Your task to perform on an android device: make emails show in primary in the gmail app Image 0: 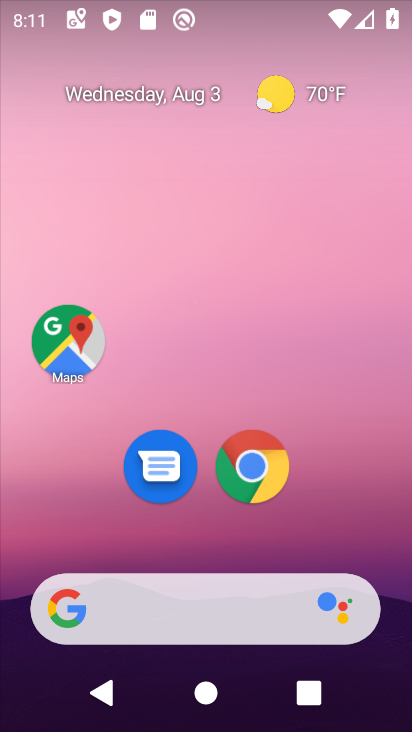
Step 0: drag from (342, 508) to (334, 257)
Your task to perform on an android device: make emails show in primary in the gmail app Image 1: 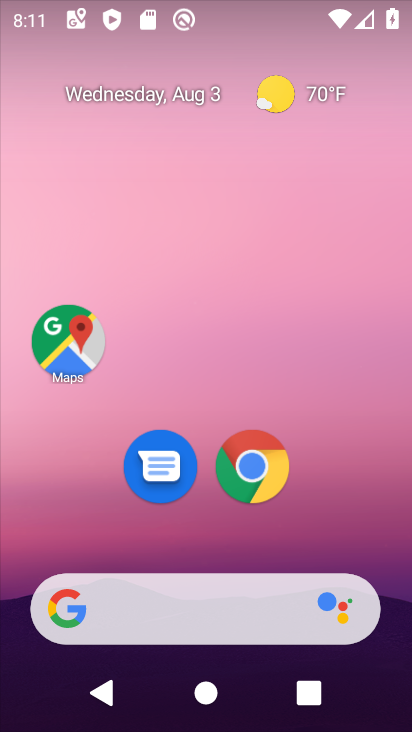
Step 1: drag from (371, 450) to (342, 35)
Your task to perform on an android device: make emails show in primary in the gmail app Image 2: 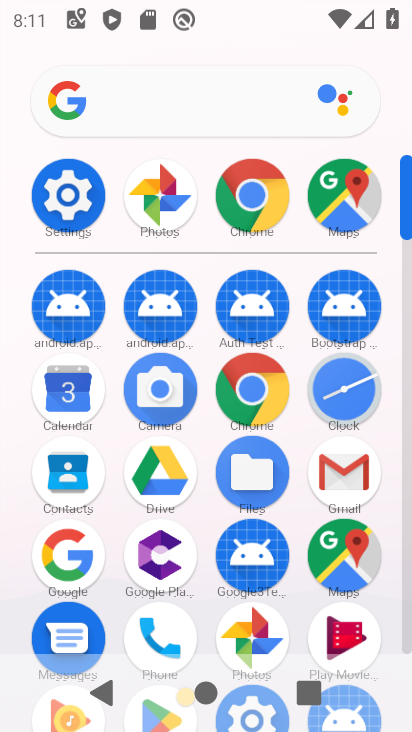
Step 2: click (337, 490)
Your task to perform on an android device: make emails show in primary in the gmail app Image 3: 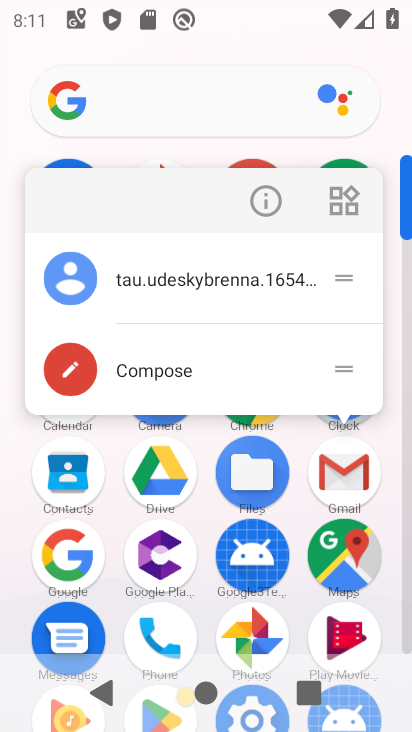
Step 3: click (340, 476)
Your task to perform on an android device: make emails show in primary in the gmail app Image 4: 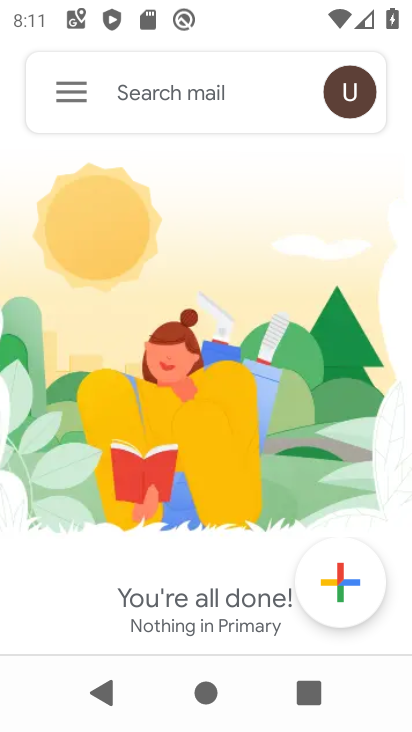
Step 4: click (78, 91)
Your task to perform on an android device: make emails show in primary in the gmail app Image 5: 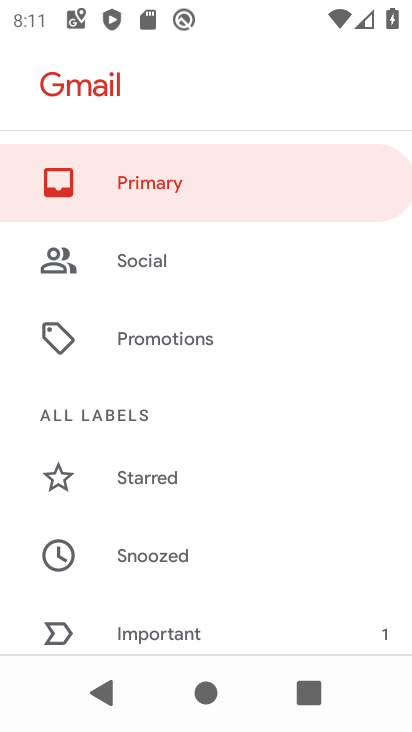
Step 5: drag from (308, 559) to (303, 53)
Your task to perform on an android device: make emails show in primary in the gmail app Image 6: 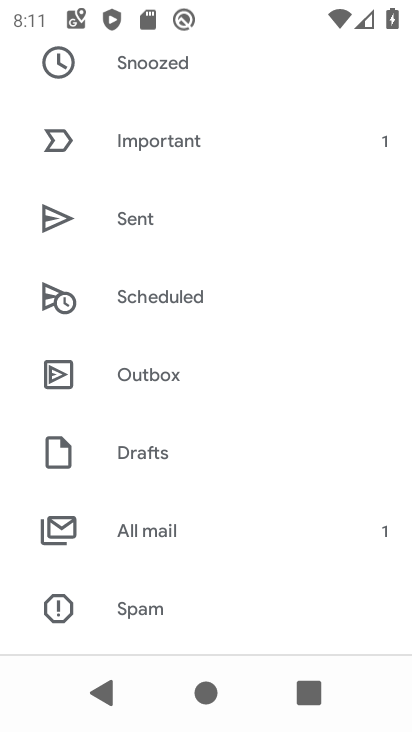
Step 6: drag from (301, 579) to (305, 218)
Your task to perform on an android device: make emails show in primary in the gmail app Image 7: 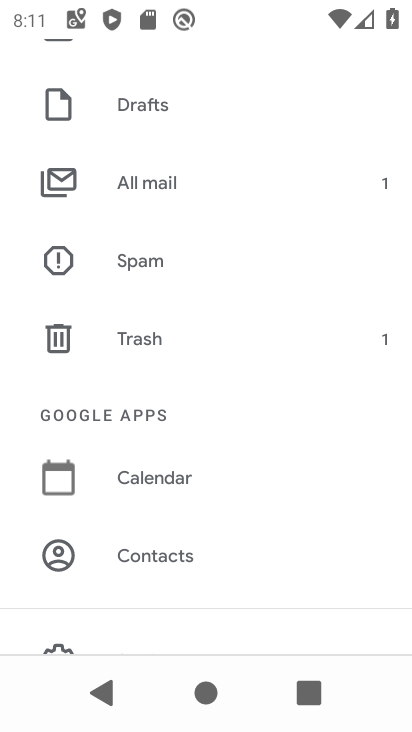
Step 7: drag from (243, 600) to (283, 298)
Your task to perform on an android device: make emails show in primary in the gmail app Image 8: 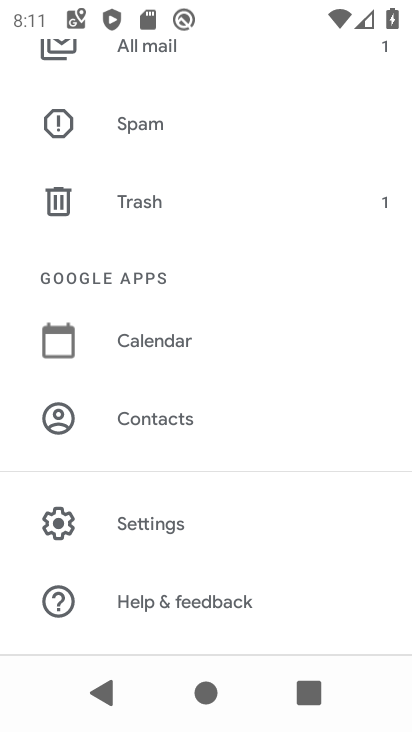
Step 8: click (150, 530)
Your task to perform on an android device: make emails show in primary in the gmail app Image 9: 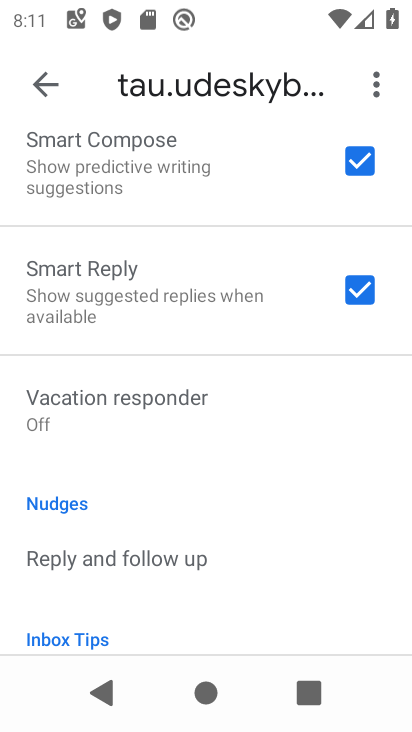
Step 9: drag from (257, 170) to (237, 570)
Your task to perform on an android device: make emails show in primary in the gmail app Image 10: 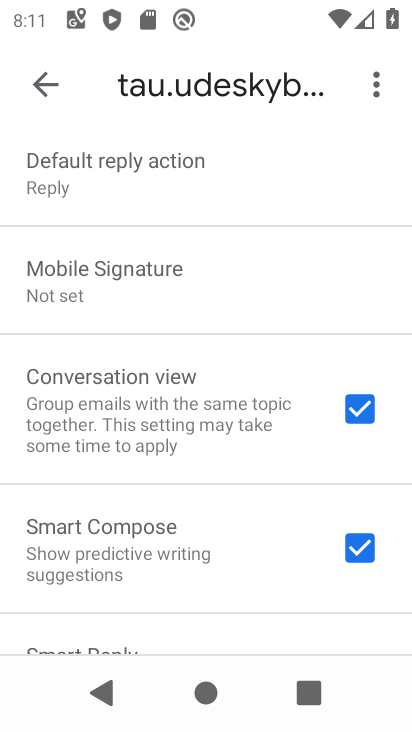
Step 10: drag from (259, 189) to (243, 559)
Your task to perform on an android device: make emails show in primary in the gmail app Image 11: 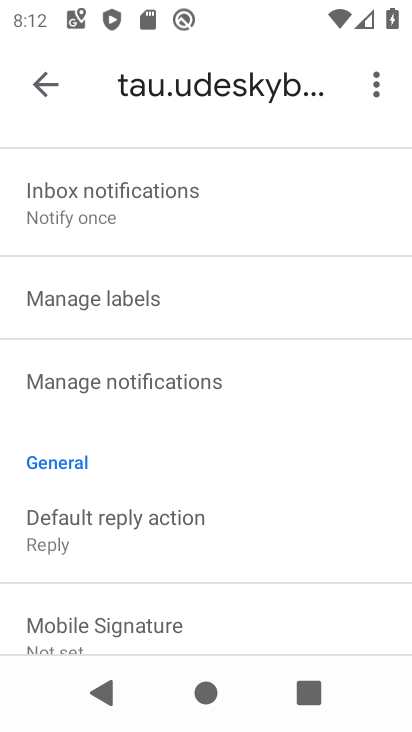
Step 11: drag from (260, 186) to (260, 490)
Your task to perform on an android device: make emails show in primary in the gmail app Image 12: 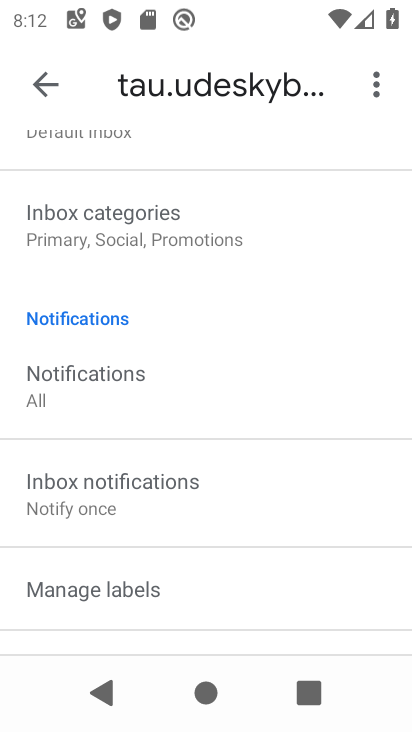
Step 12: drag from (324, 203) to (309, 455)
Your task to perform on an android device: make emails show in primary in the gmail app Image 13: 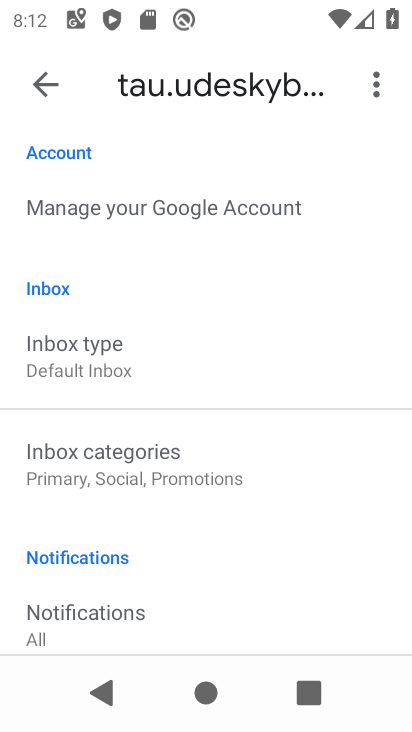
Step 13: drag from (296, 141) to (259, 393)
Your task to perform on an android device: make emails show in primary in the gmail app Image 14: 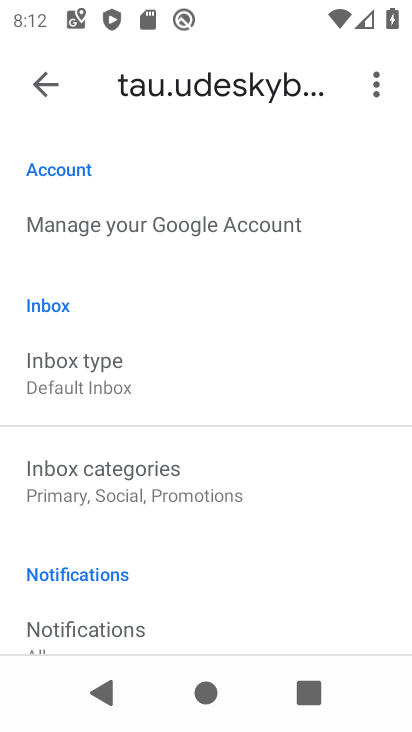
Step 14: drag from (330, 419) to (342, 276)
Your task to perform on an android device: make emails show in primary in the gmail app Image 15: 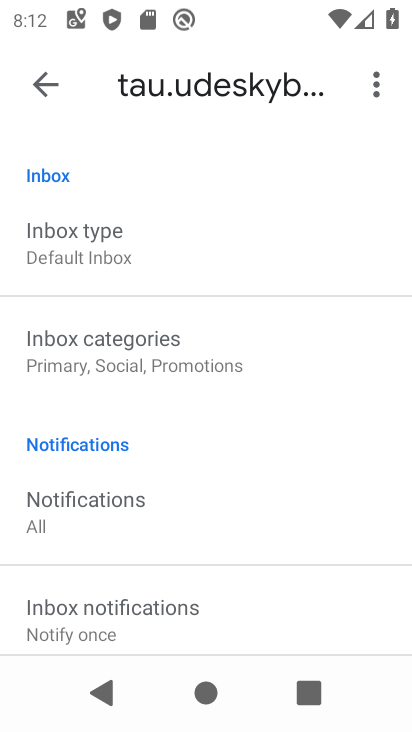
Step 15: click (92, 353)
Your task to perform on an android device: make emails show in primary in the gmail app Image 16: 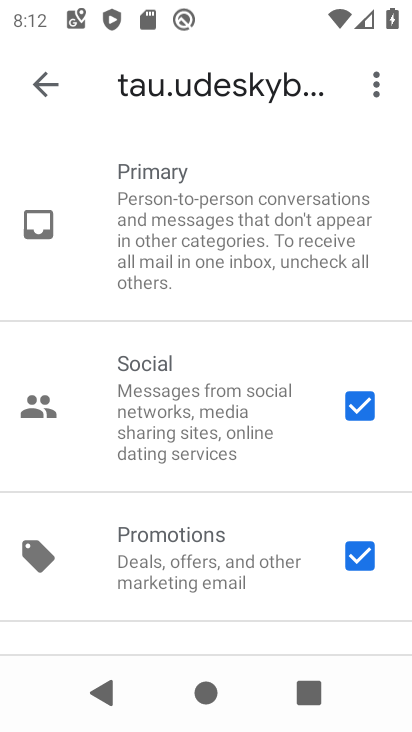
Step 16: task complete